Your task to perform on an android device: install app "eBay: The shopping marketplace" Image 0: 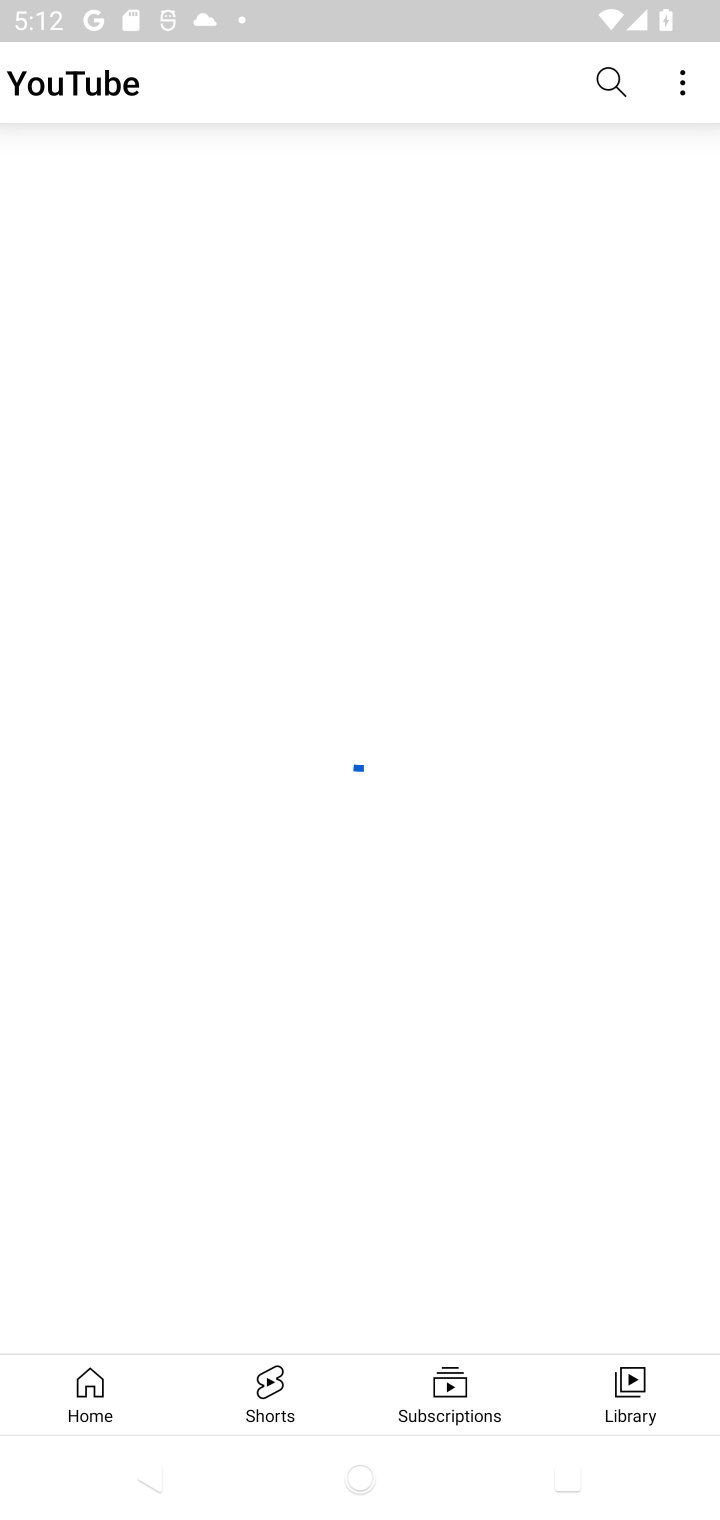
Step 0: click (567, 86)
Your task to perform on an android device: install app "eBay: The shopping marketplace" Image 1: 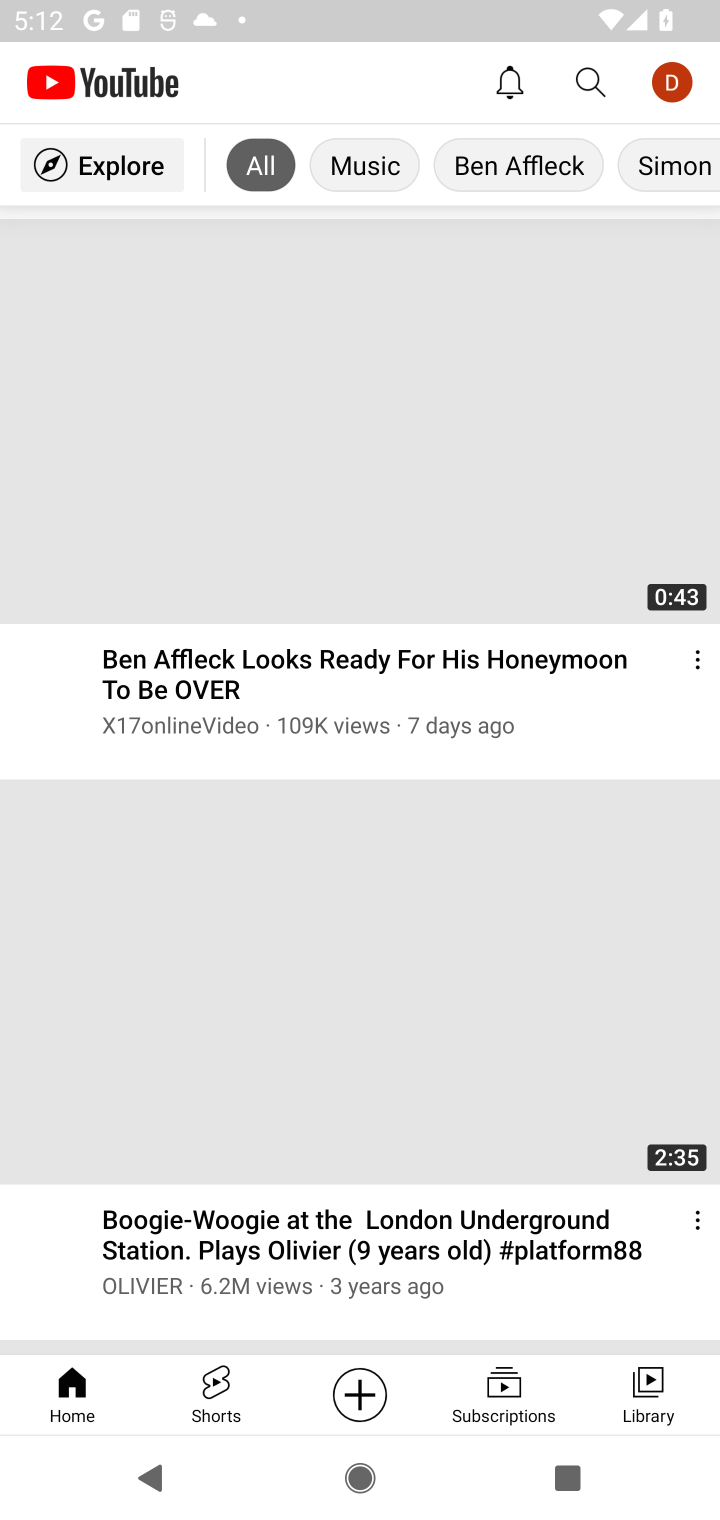
Step 1: press home button
Your task to perform on an android device: install app "eBay: The shopping marketplace" Image 2: 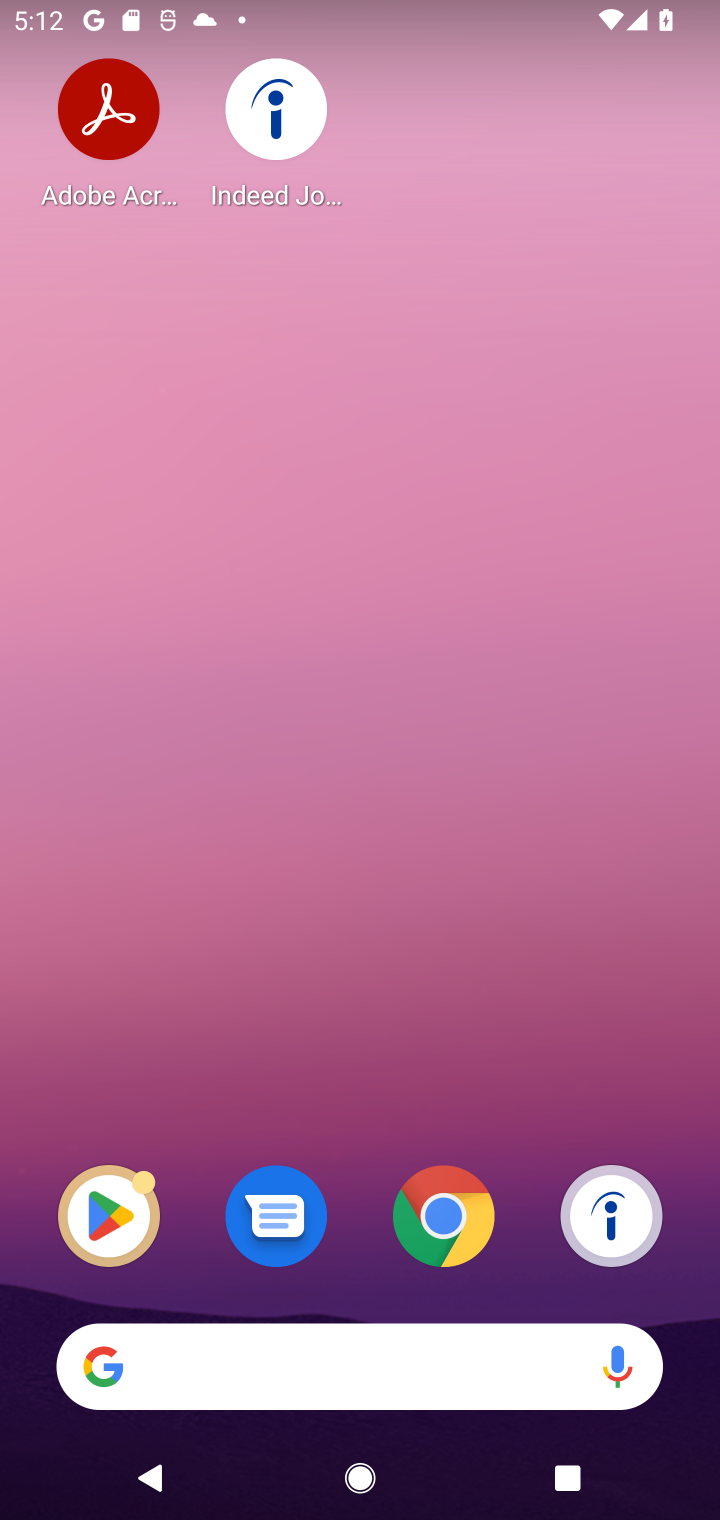
Step 2: click (135, 1221)
Your task to perform on an android device: install app "eBay: The shopping marketplace" Image 3: 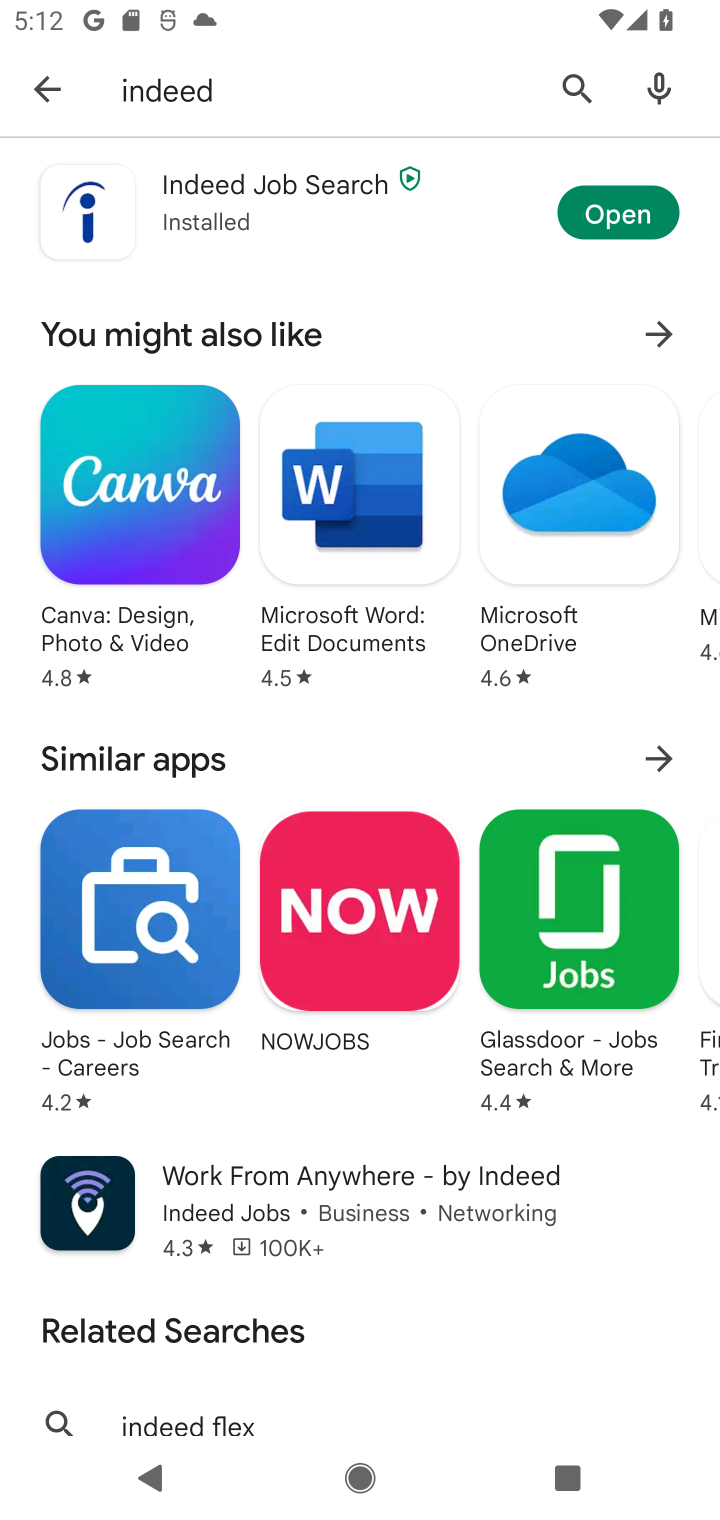
Step 3: click (586, 91)
Your task to perform on an android device: install app "eBay: The shopping marketplace" Image 4: 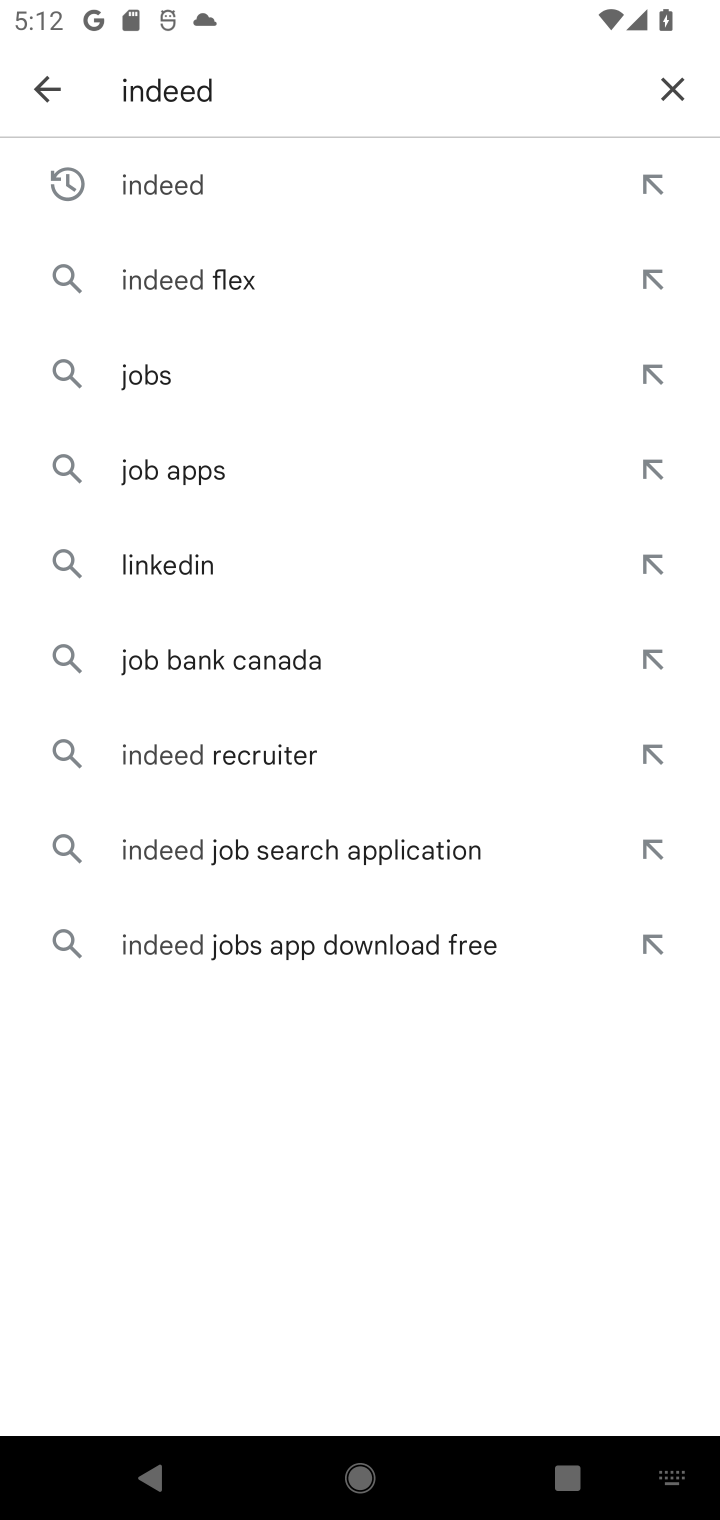
Step 4: click (649, 91)
Your task to perform on an android device: install app "eBay: The shopping marketplace" Image 5: 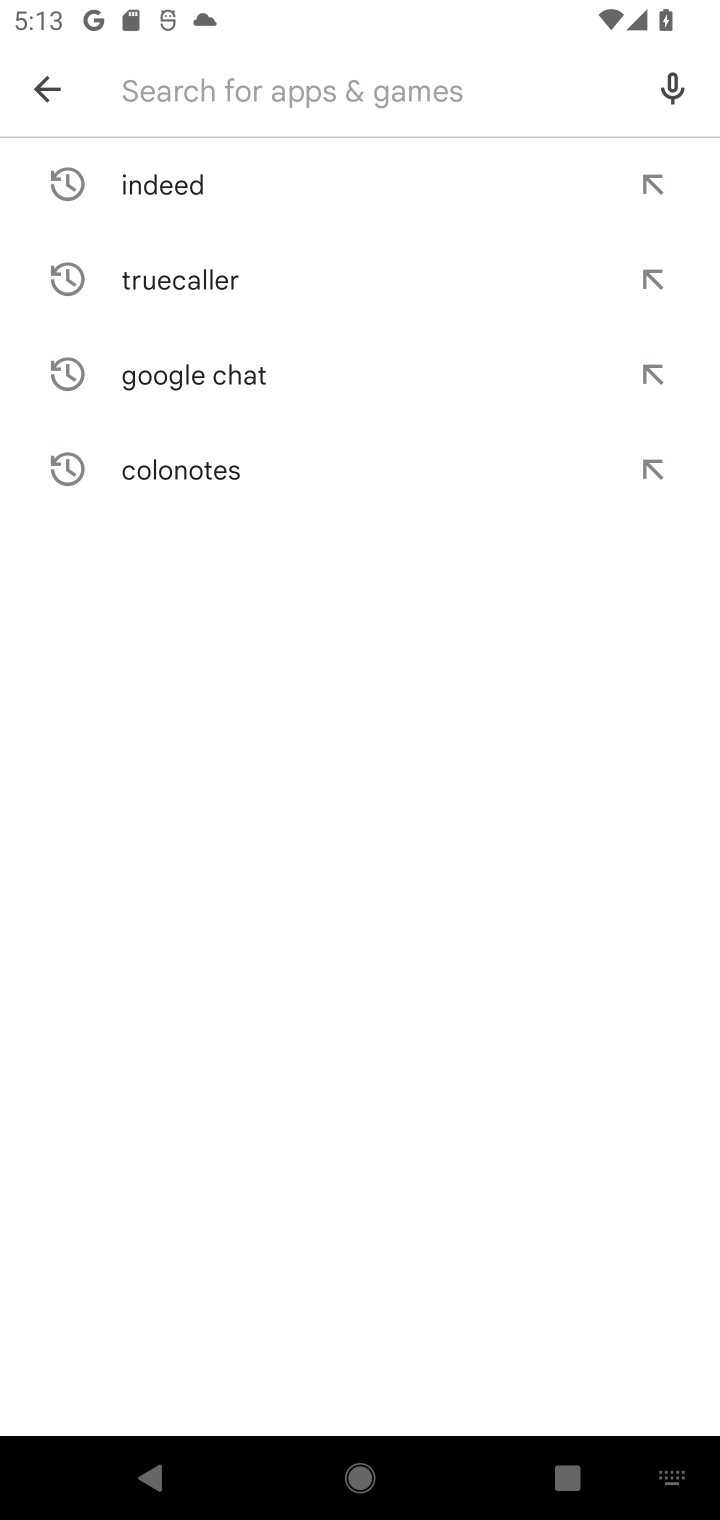
Step 5: type "ebay"
Your task to perform on an android device: install app "eBay: The shopping marketplace" Image 6: 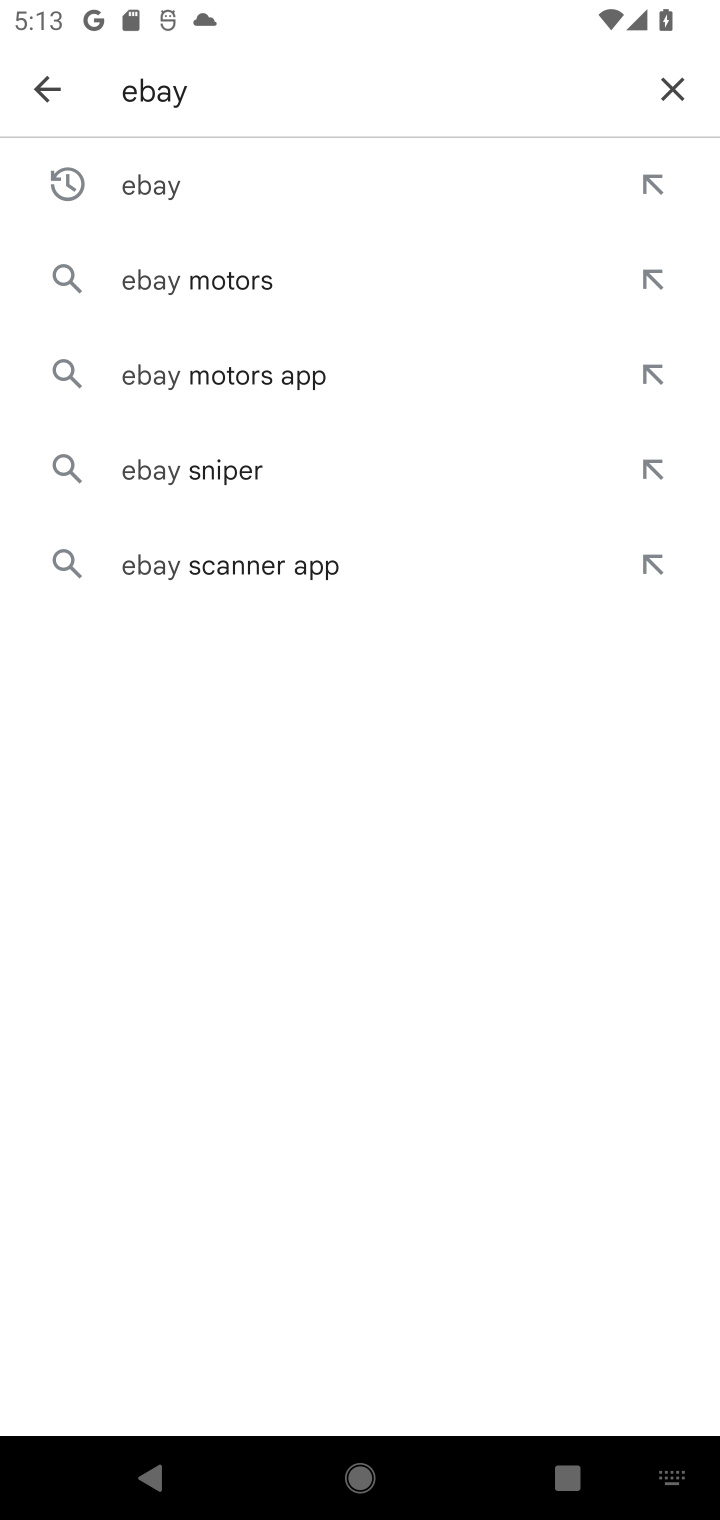
Step 6: click (252, 224)
Your task to perform on an android device: install app "eBay: The shopping marketplace" Image 7: 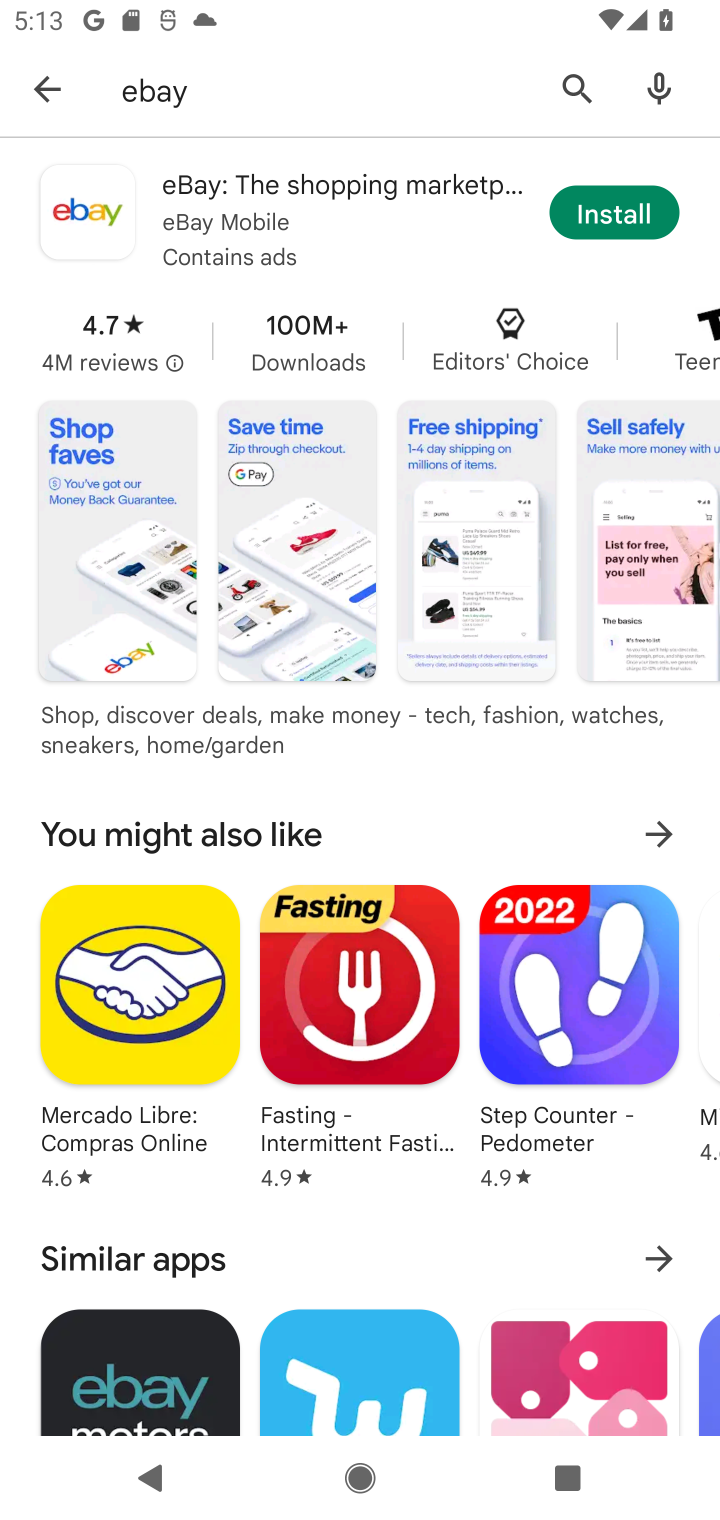
Step 7: click (617, 218)
Your task to perform on an android device: install app "eBay: The shopping marketplace" Image 8: 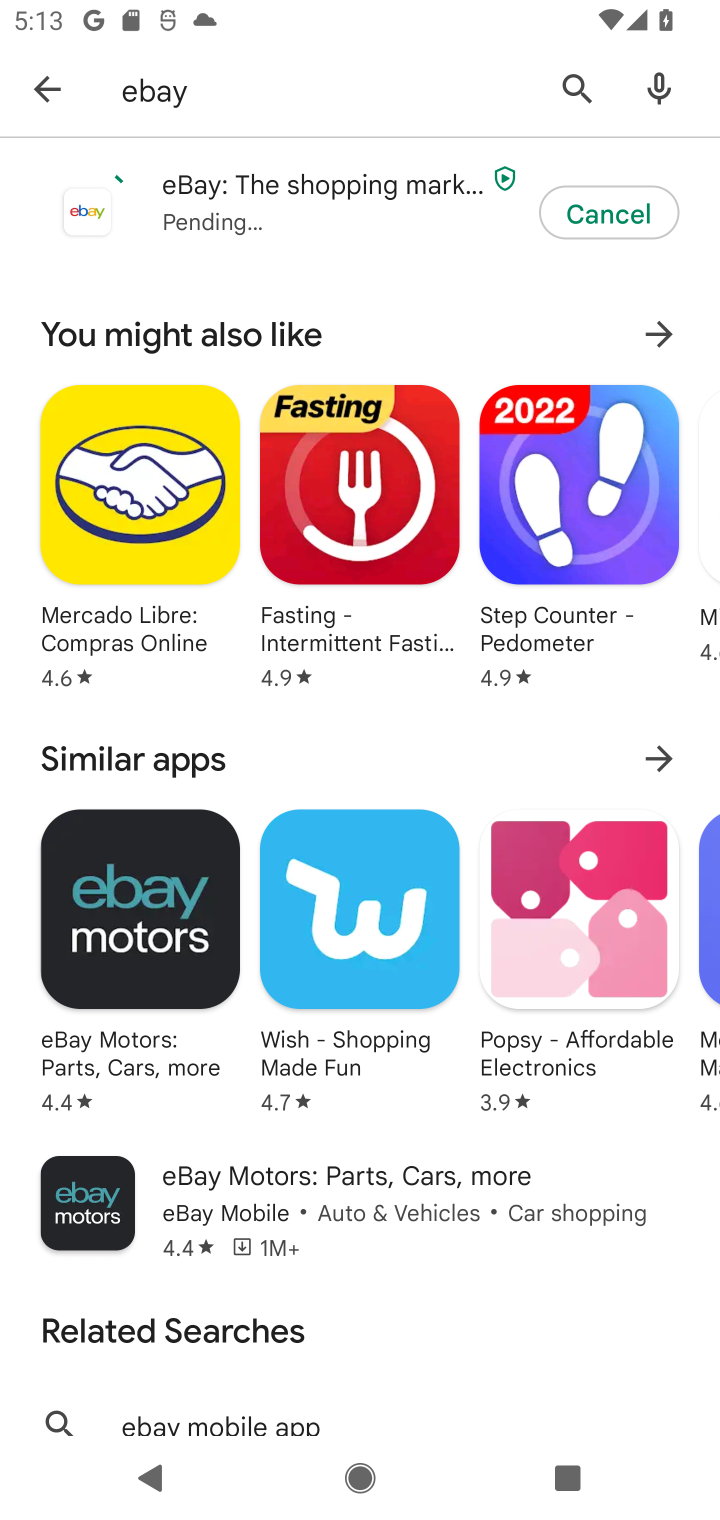
Step 8: task complete